Your task to perform on an android device: visit the assistant section in the google photos Image 0: 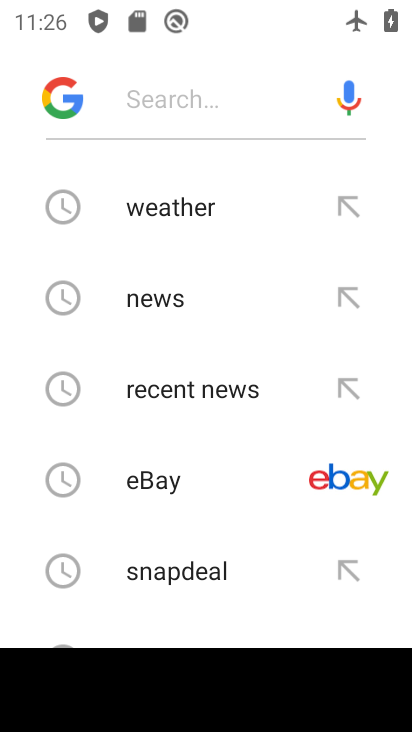
Step 0: press back button
Your task to perform on an android device: visit the assistant section in the google photos Image 1: 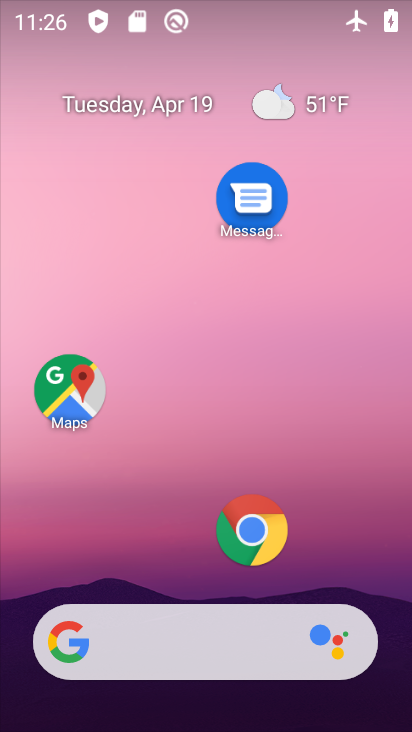
Step 1: drag from (161, 595) to (266, 77)
Your task to perform on an android device: visit the assistant section in the google photos Image 2: 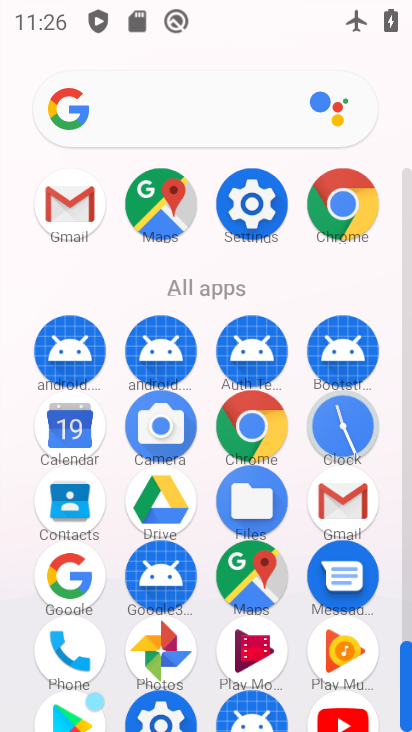
Step 2: click (155, 652)
Your task to perform on an android device: visit the assistant section in the google photos Image 3: 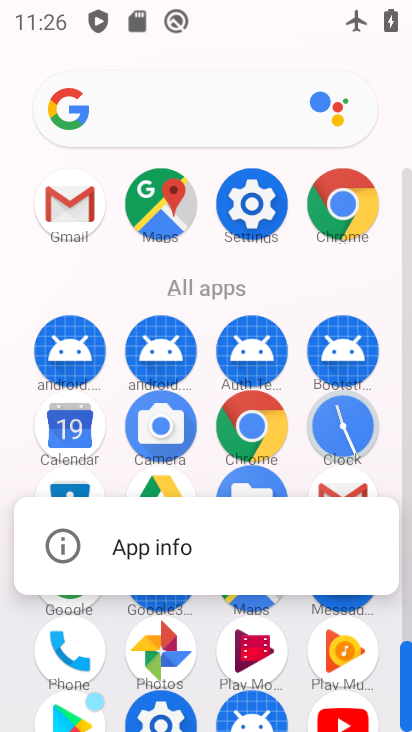
Step 3: click (164, 653)
Your task to perform on an android device: visit the assistant section in the google photos Image 4: 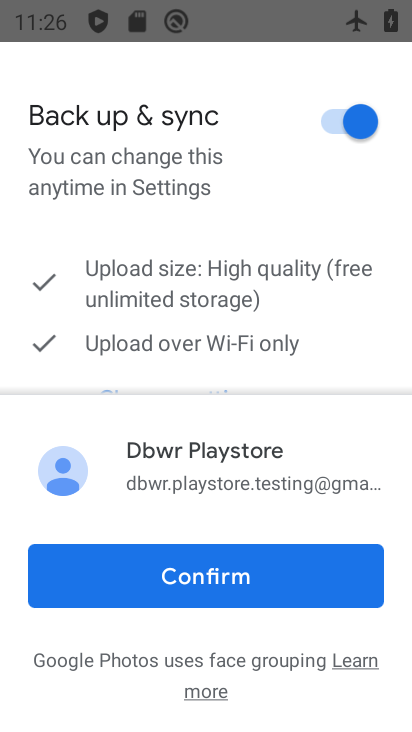
Step 4: click (269, 600)
Your task to perform on an android device: visit the assistant section in the google photos Image 5: 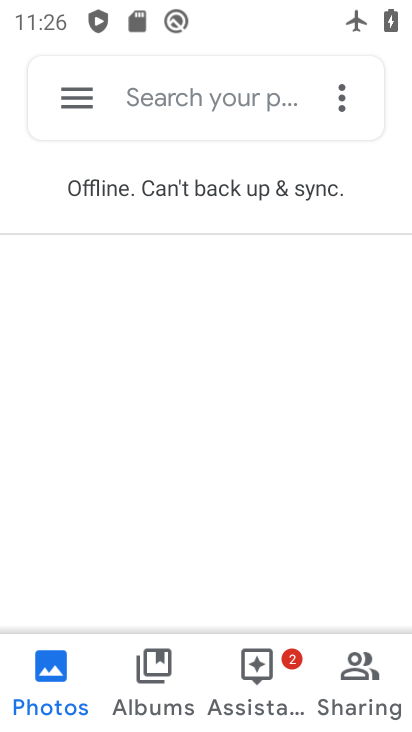
Step 5: click (262, 671)
Your task to perform on an android device: visit the assistant section in the google photos Image 6: 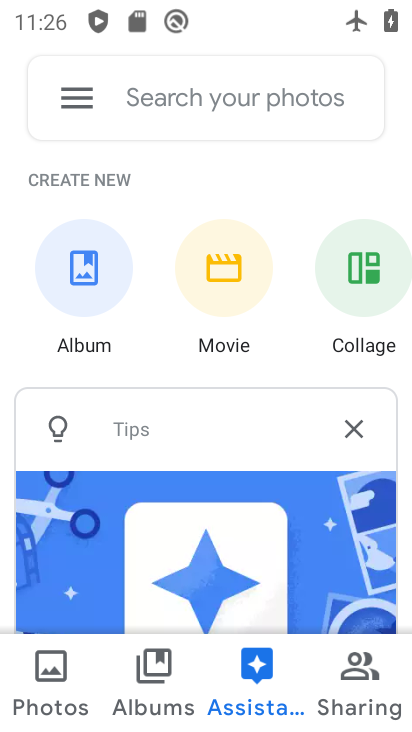
Step 6: task complete